Your task to perform on an android device: Show me the alarms in the clock app Image 0: 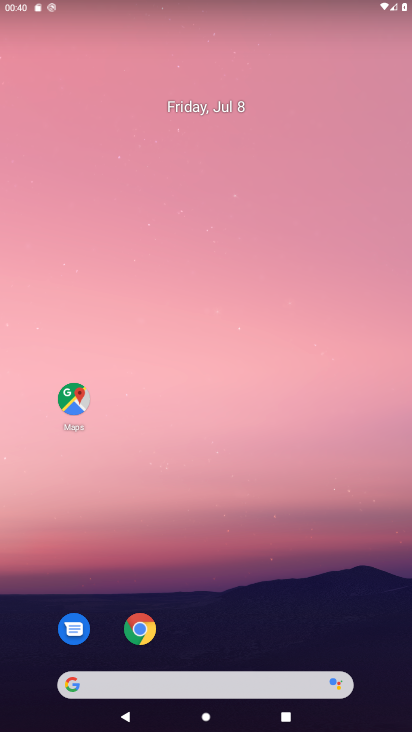
Step 0: drag from (232, 545) to (225, 332)
Your task to perform on an android device: Show me the alarms in the clock app Image 1: 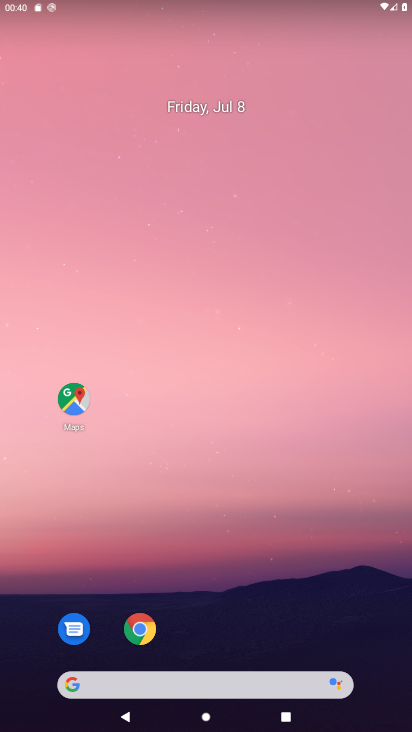
Step 1: drag from (287, 613) to (275, 254)
Your task to perform on an android device: Show me the alarms in the clock app Image 2: 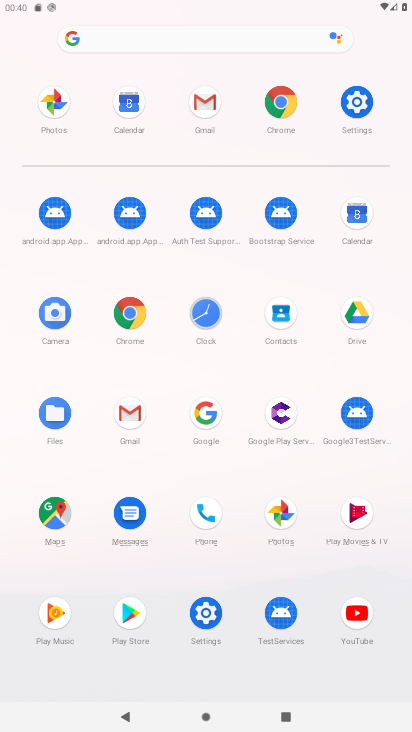
Step 2: click (205, 310)
Your task to perform on an android device: Show me the alarms in the clock app Image 3: 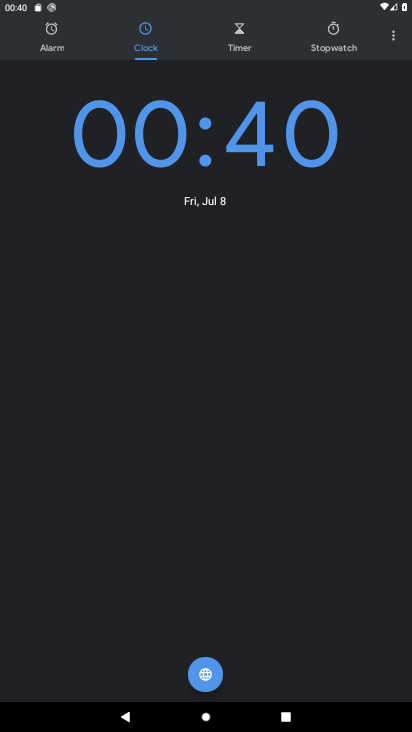
Step 3: click (59, 37)
Your task to perform on an android device: Show me the alarms in the clock app Image 4: 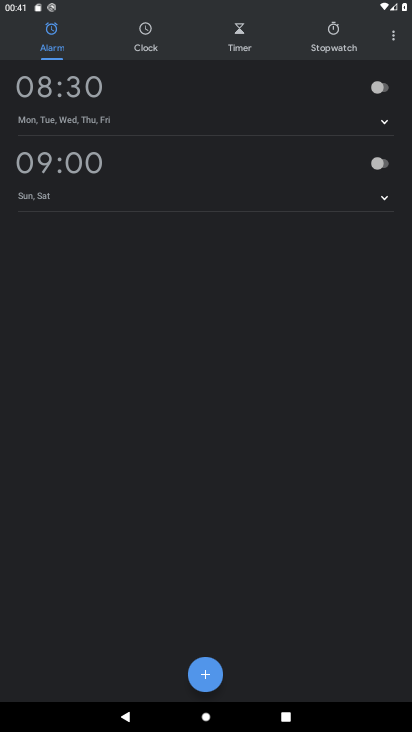
Step 4: task complete